Your task to perform on an android device: toggle improve location accuracy Image 0: 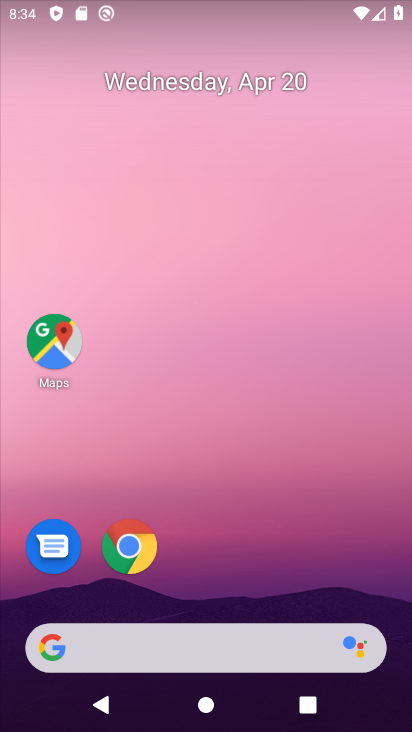
Step 0: drag from (313, 553) to (295, 83)
Your task to perform on an android device: toggle improve location accuracy Image 1: 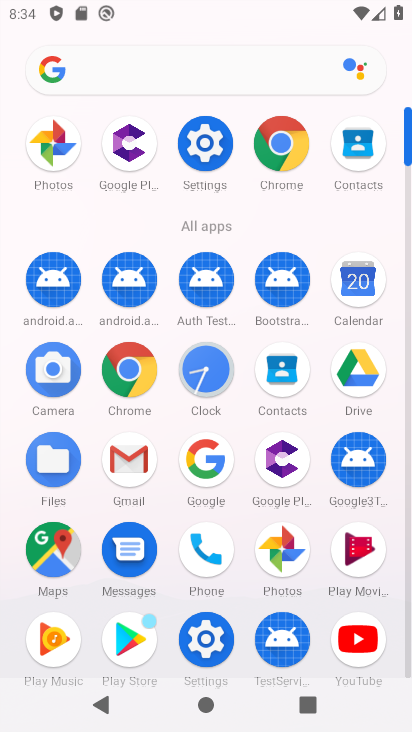
Step 1: click (210, 637)
Your task to perform on an android device: toggle improve location accuracy Image 2: 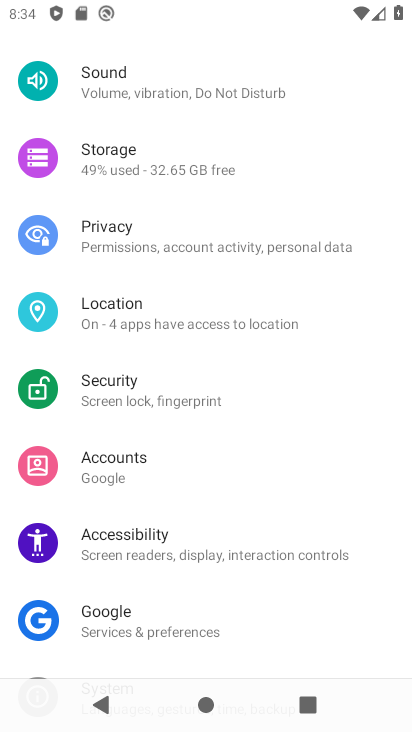
Step 2: drag from (236, 490) to (216, 205)
Your task to perform on an android device: toggle improve location accuracy Image 3: 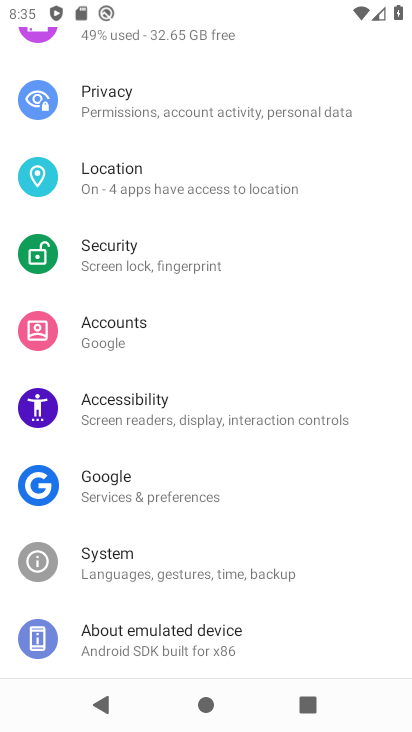
Step 3: click (201, 179)
Your task to perform on an android device: toggle improve location accuracy Image 4: 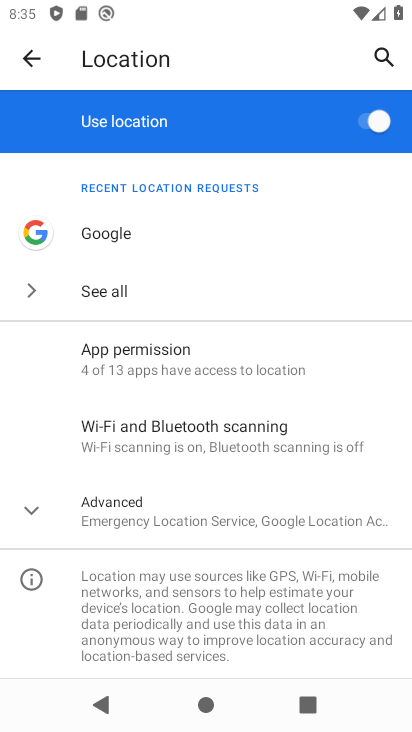
Step 4: click (156, 508)
Your task to perform on an android device: toggle improve location accuracy Image 5: 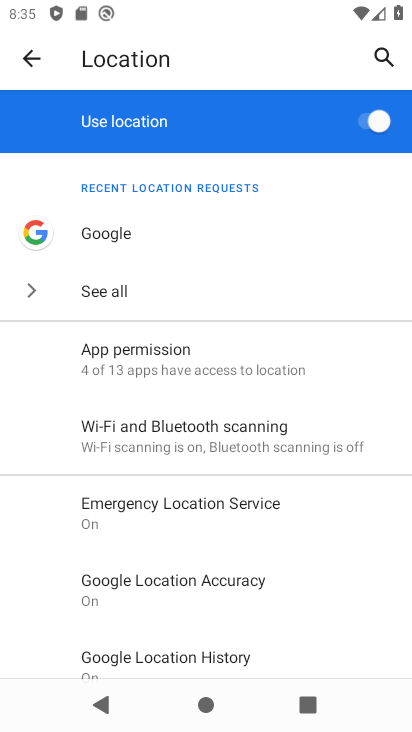
Step 5: click (228, 601)
Your task to perform on an android device: toggle improve location accuracy Image 6: 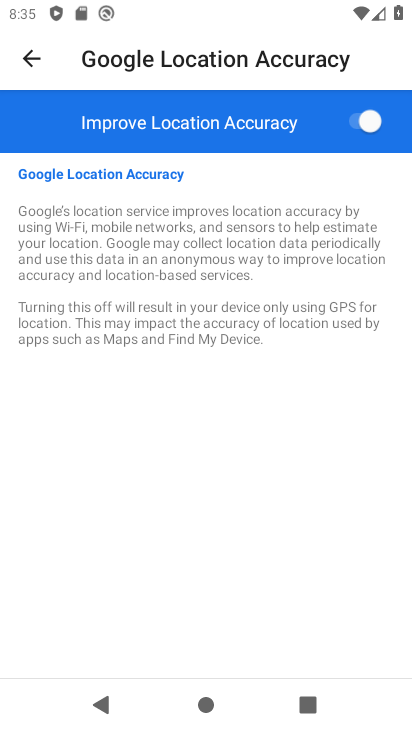
Step 6: click (369, 120)
Your task to perform on an android device: toggle improve location accuracy Image 7: 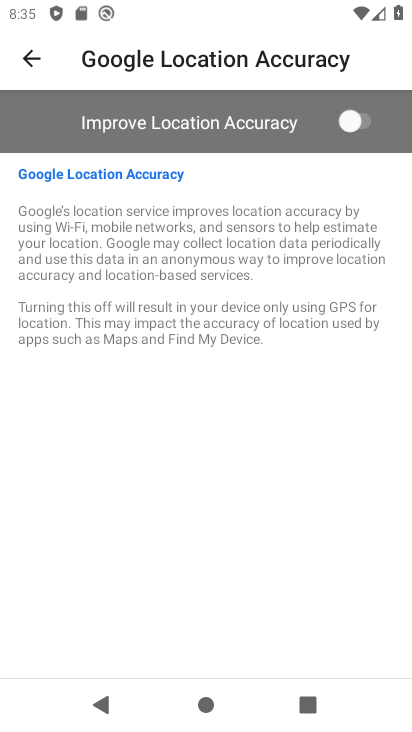
Step 7: task complete